Your task to perform on an android device: turn off priority inbox in the gmail app Image 0: 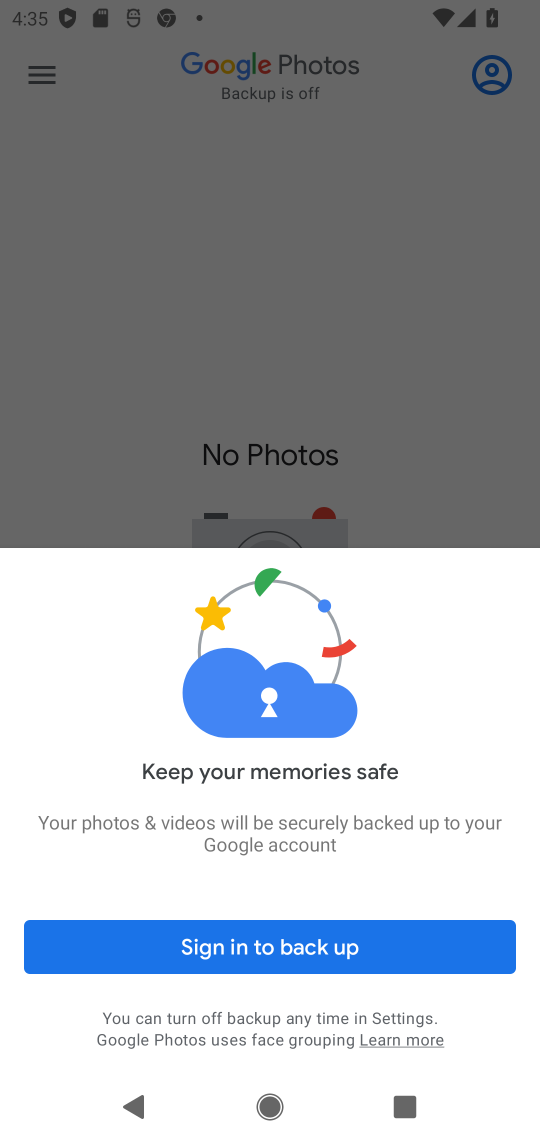
Step 0: press home button
Your task to perform on an android device: turn off priority inbox in the gmail app Image 1: 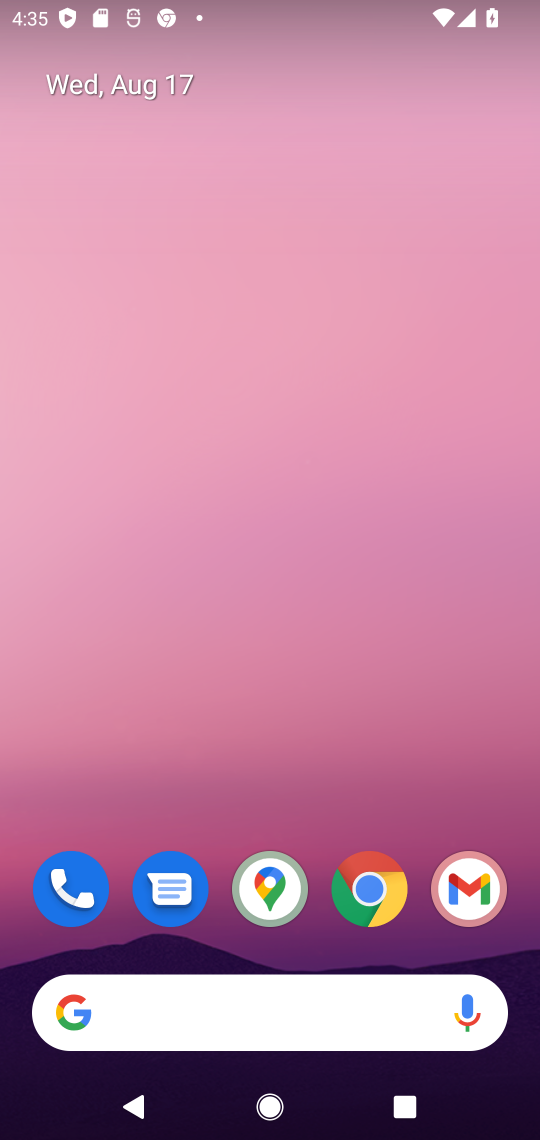
Step 1: click (476, 879)
Your task to perform on an android device: turn off priority inbox in the gmail app Image 2: 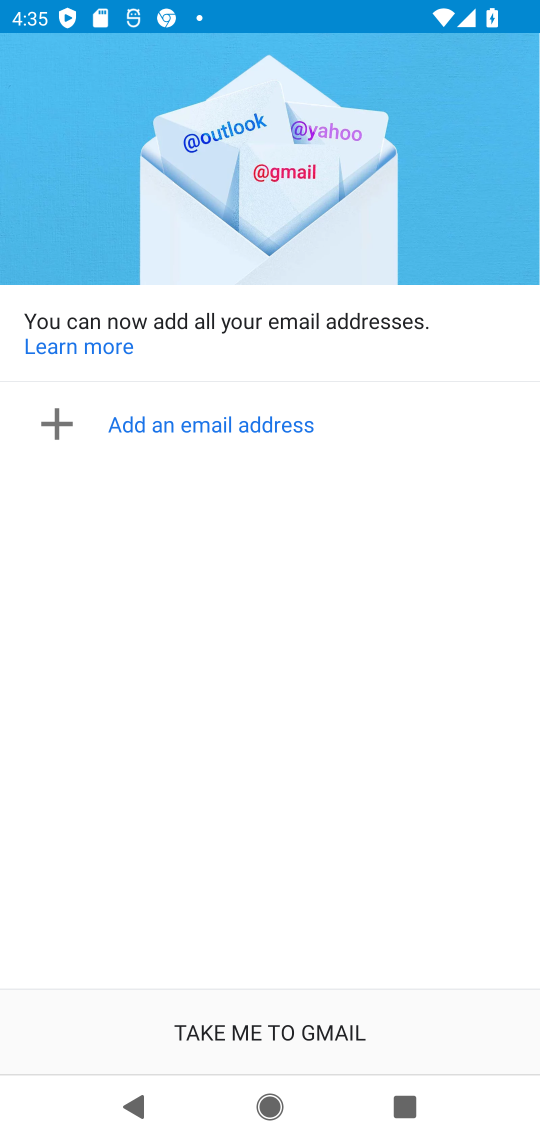
Step 2: click (288, 1015)
Your task to perform on an android device: turn off priority inbox in the gmail app Image 3: 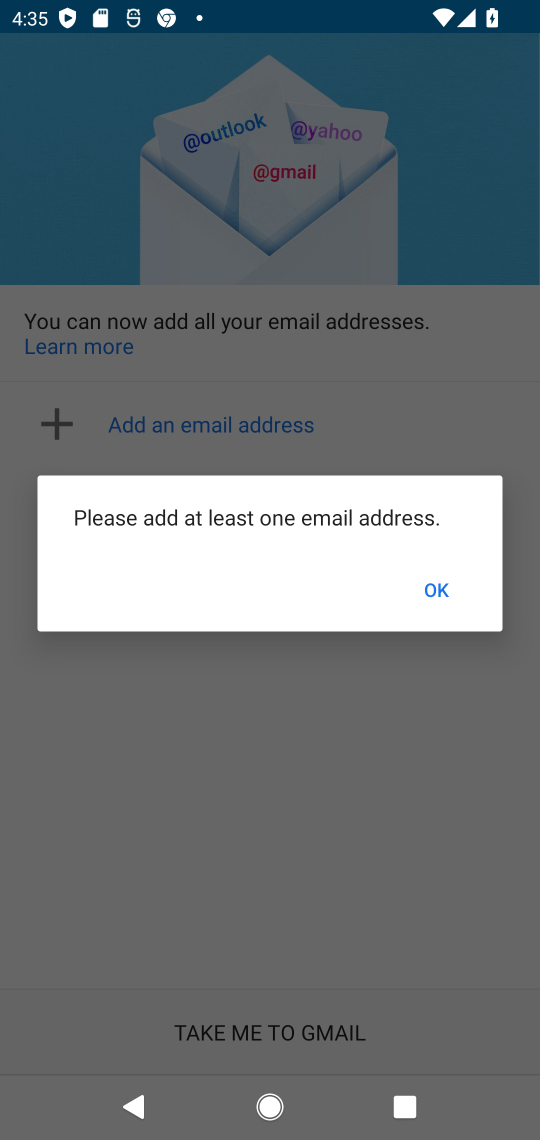
Step 3: click (447, 591)
Your task to perform on an android device: turn off priority inbox in the gmail app Image 4: 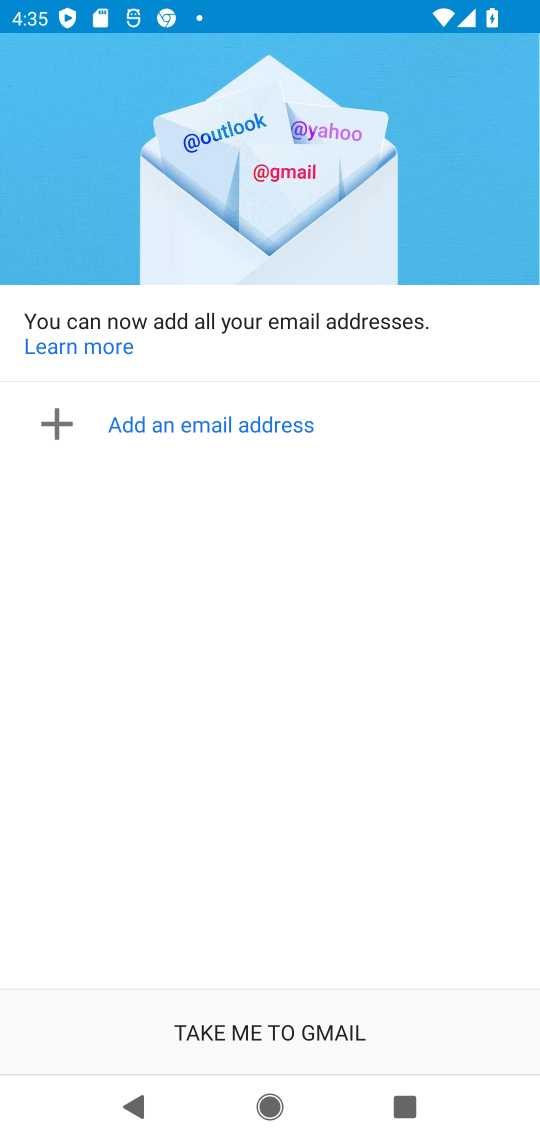
Step 4: task complete